Your task to perform on an android device: Go to sound settings Image 0: 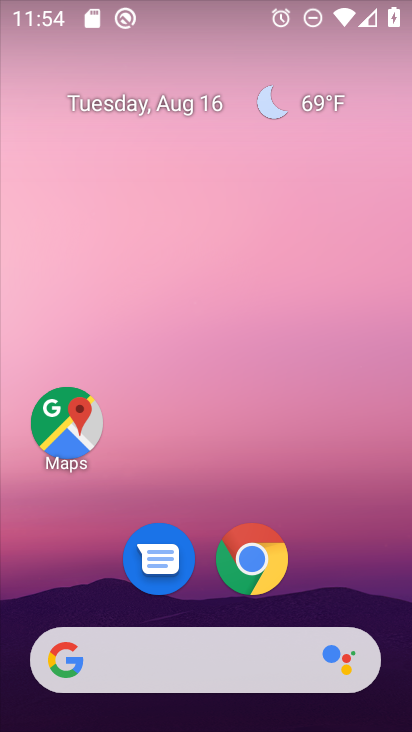
Step 0: drag from (184, 683) to (167, 158)
Your task to perform on an android device: Go to sound settings Image 1: 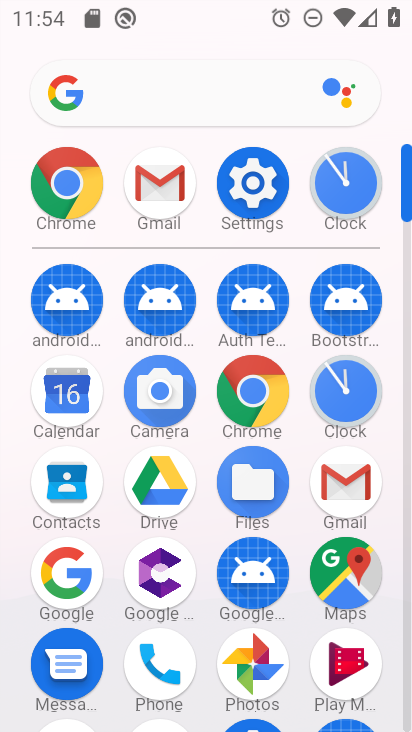
Step 1: click (252, 183)
Your task to perform on an android device: Go to sound settings Image 2: 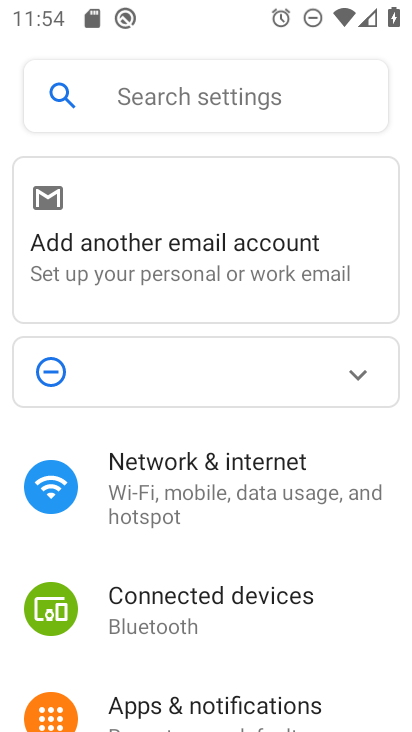
Step 2: drag from (218, 542) to (250, 422)
Your task to perform on an android device: Go to sound settings Image 3: 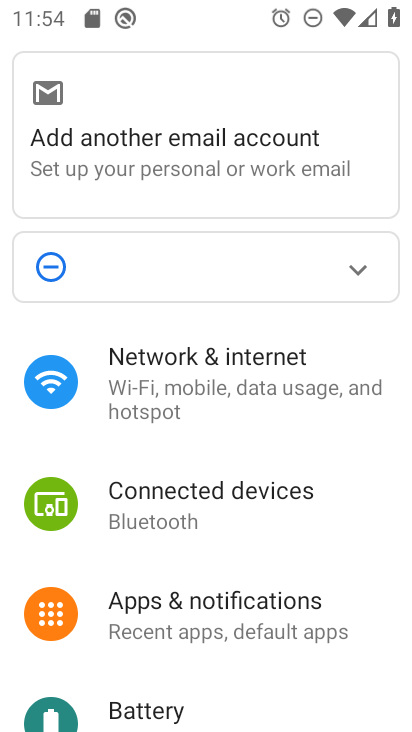
Step 3: drag from (207, 654) to (280, 552)
Your task to perform on an android device: Go to sound settings Image 4: 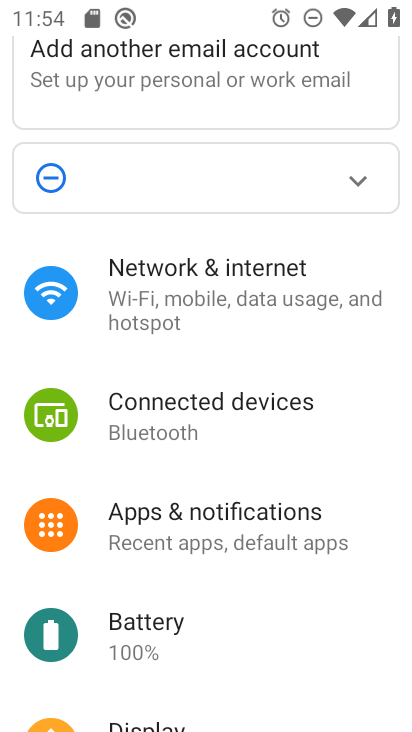
Step 4: drag from (223, 660) to (304, 513)
Your task to perform on an android device: Go to sound settings Image 5: 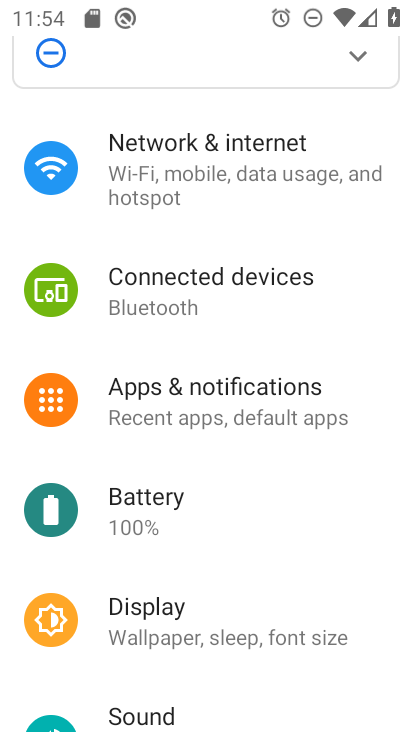
Step 5: drag from (215, 670) to (268, 545)
Your task to perform on an android device: Go to sound settings Image 6: 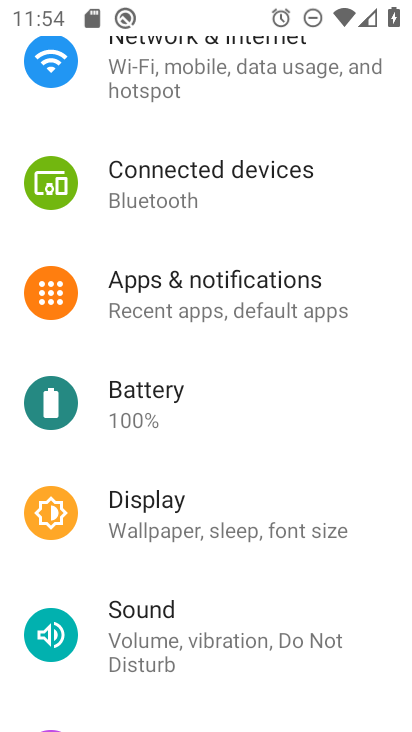
Step 6: click (191, 647)
Your task to perform on an android device: Go to sound settings Image 7: 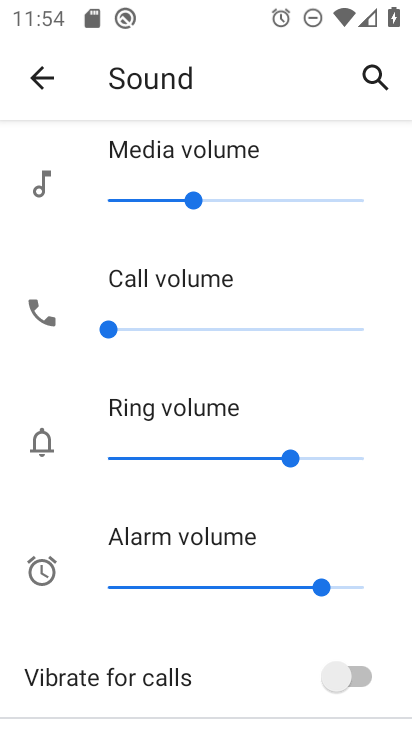
Step 7: task complete